Your task to perform on an android device: turn off sleep mode Image 0: 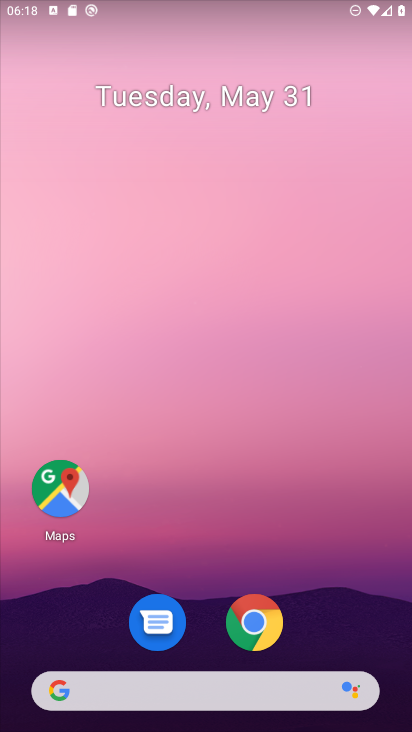
Step 0: drag from (341, 627) to (373, 33)
Your task to perform on an android device: turn off sleep mode Image 1: 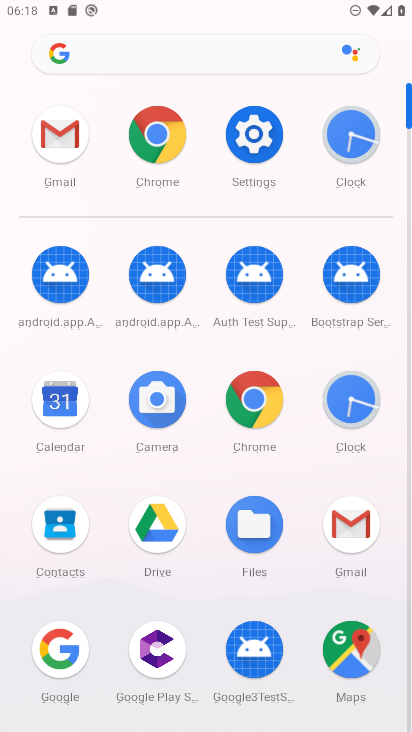
Step 1: task complete